Your task to perform on an android device: turn notification dots on Image 0: 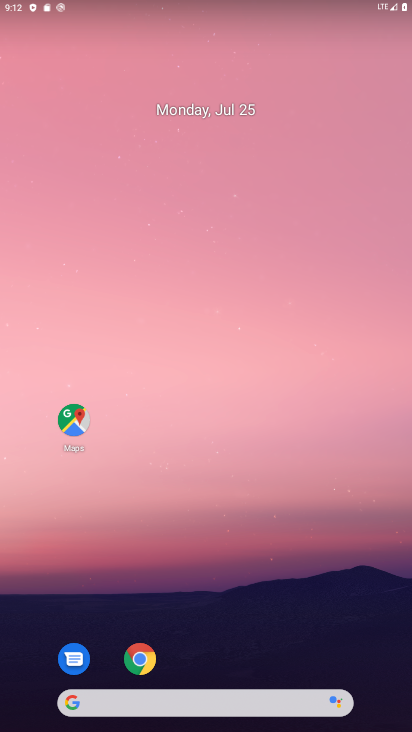
Step 0: drag from (218, 631) to (304, 134)
Your task to perform on an android device: turn notification dots on Image 1: 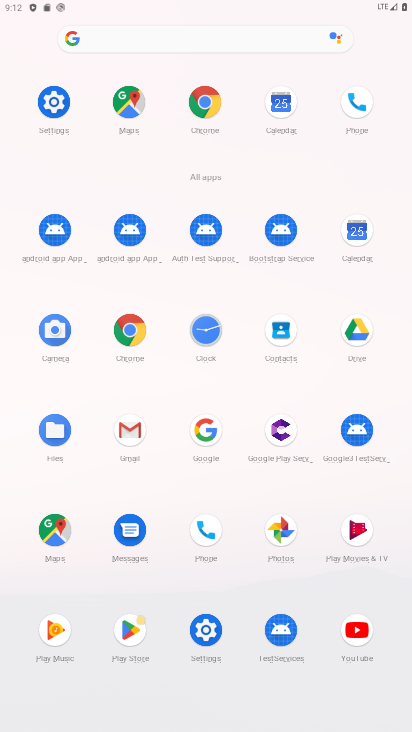
Step 1: click (203, 643)
Your task to perform on an android device: turn notification dots on Image 2: 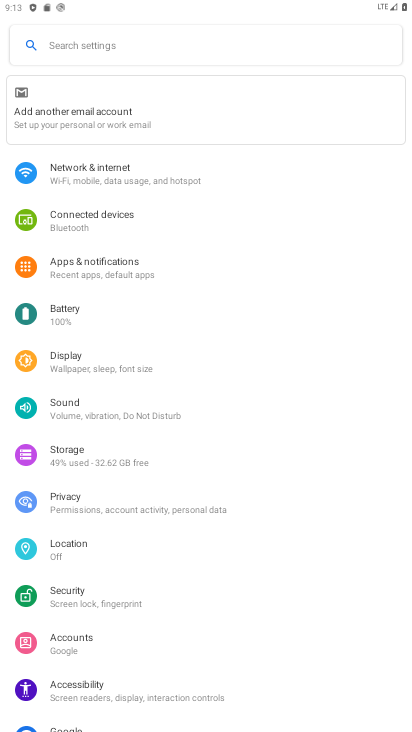
Step 2: click (127, 269)
Your task to perform on an android device: turn notification dots on Image 3: 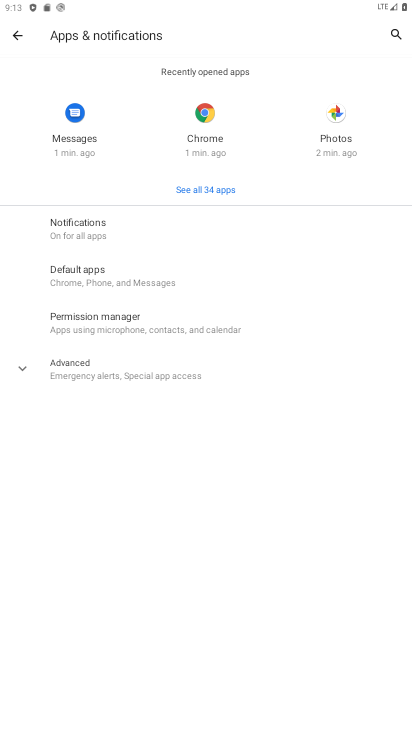
Step 3: click (91, 231)
Your task to perform on an android device: turn notification dots on Image 4: 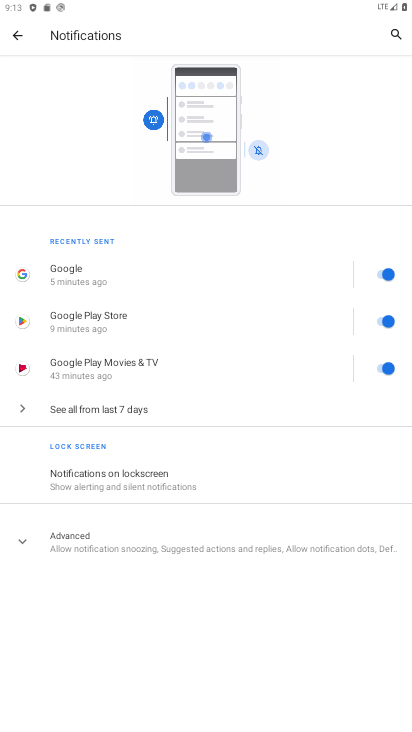
Step 4: click (95, 550)
Your task to perform on an android device: turn notification dots on Image 5: 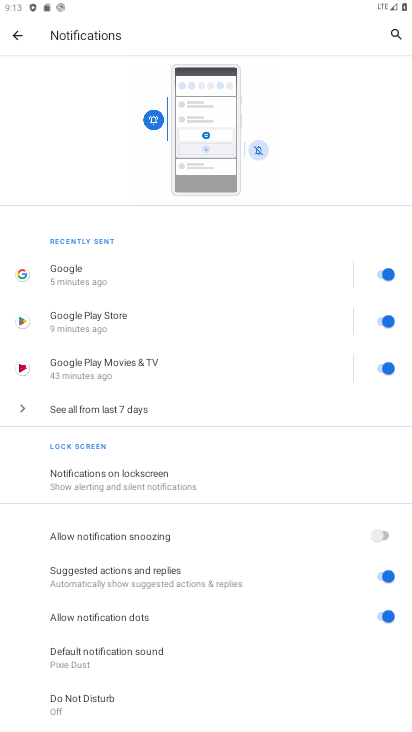
Step 5: task complete